Your task to perform on an android device: What's the weather going to be this weekend? Image 0: 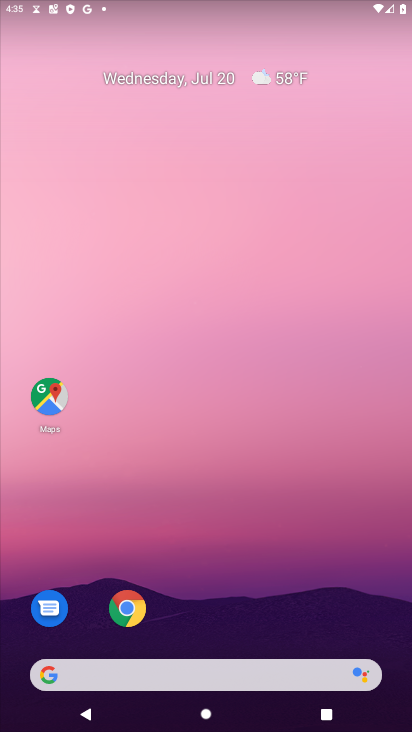
Step 0: click (223, 672)
Your task to perform on an android device: What's the weather going to be this weekend? Image 1: 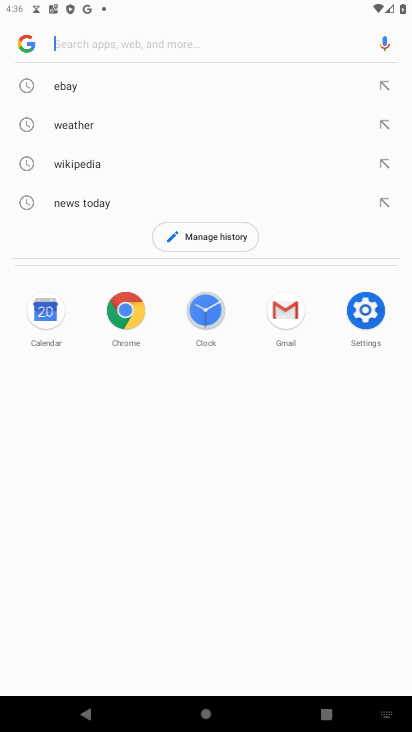
Step 1: type "weather"
Your task to perform on an android device: What's the weather going to be this weekend? Image 2: 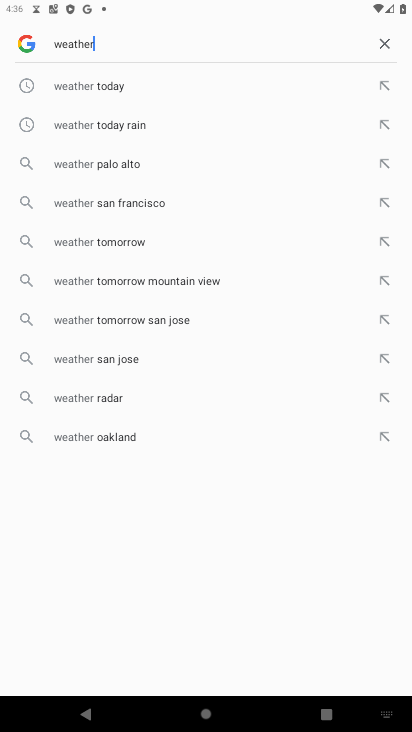
Step 2: click (71, 95)
Your task to perform on an android device: What's the weather going to be this weekend? Image 3: 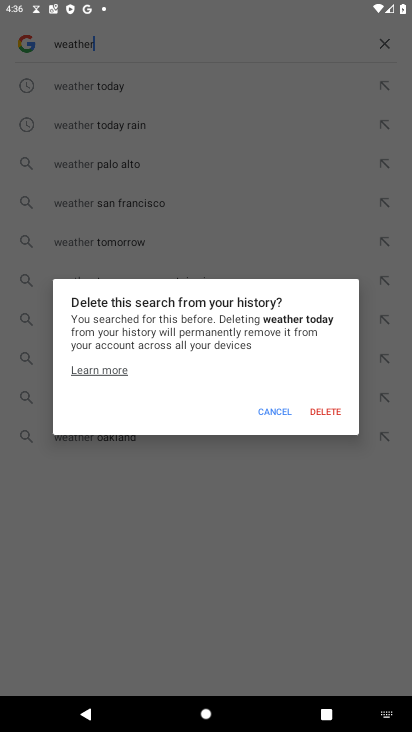
Step 3: click (267, 414)
Your task to perform on an android device: What's the weather going to be this weekend? Image 4: 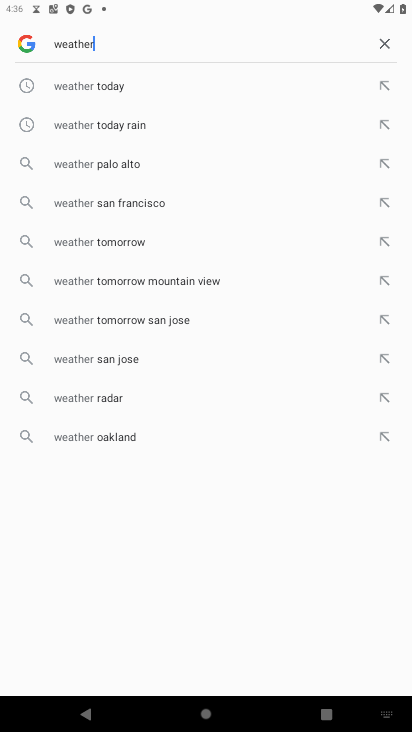
Step 4: click (28, 87)
Your task to perform on an android device: What's the weather going to be this weekend? Image 5: 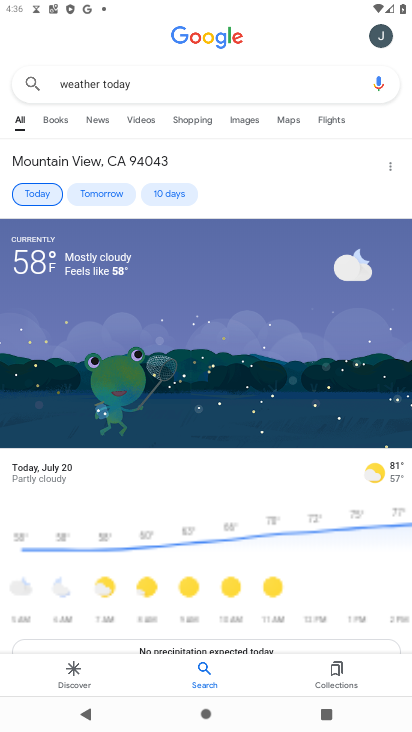
Step 5: click (165, 195)
Your task to perform on an android device: What's the weather going to be this weekend? Image 6: 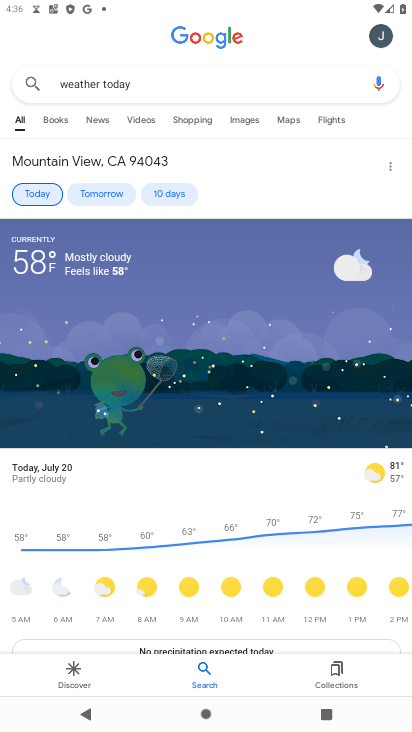
Step 6: click (165, 195)
Your task to perform on an android device: What's the weather going to be this weekend? Image 7: 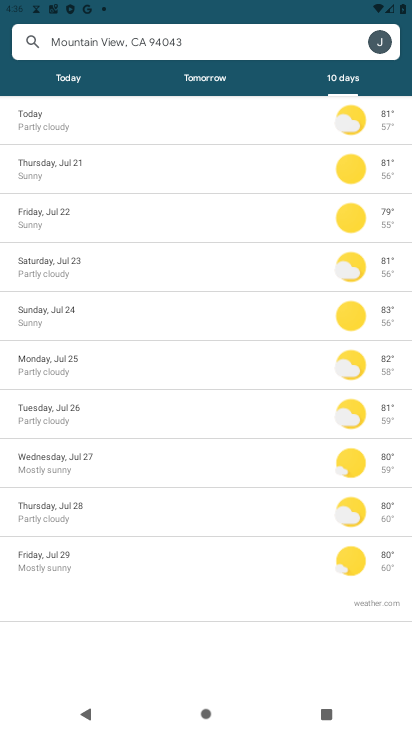
Step 7: task complete